Your task to perform on an android device: see tabs open on other devices in the chrome app Image 0: 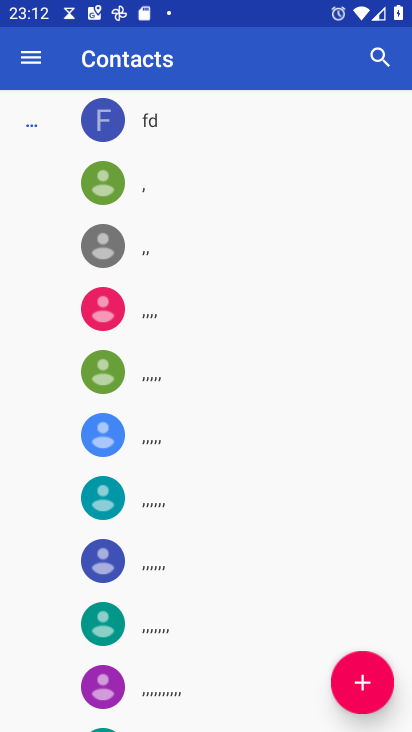
Step 0: press home button
Your task to perform on an android device: see tabs open on other devices in the chrome app Image 1: 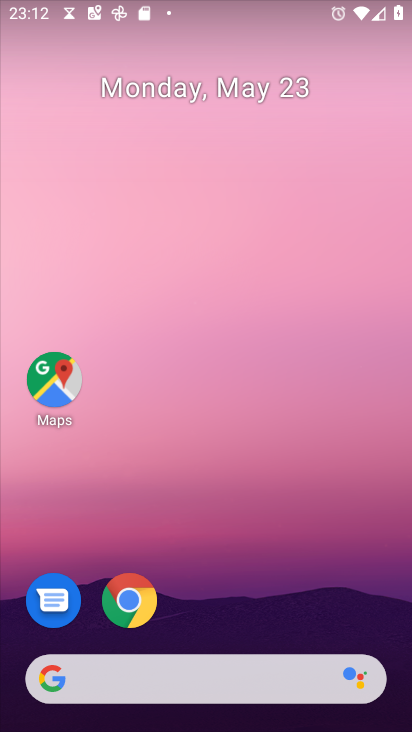
Step 1: click (126, 602)
Your task to perform on an android device: see tabs open on other devices in the chrome app Image 2: 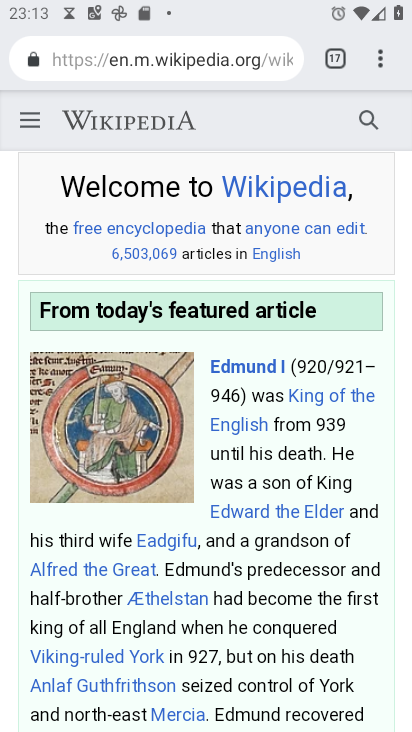
Step 2: click (382, 63)
Your task to perform on an android device: see tabs open on other devices in the chrome app Image 3: 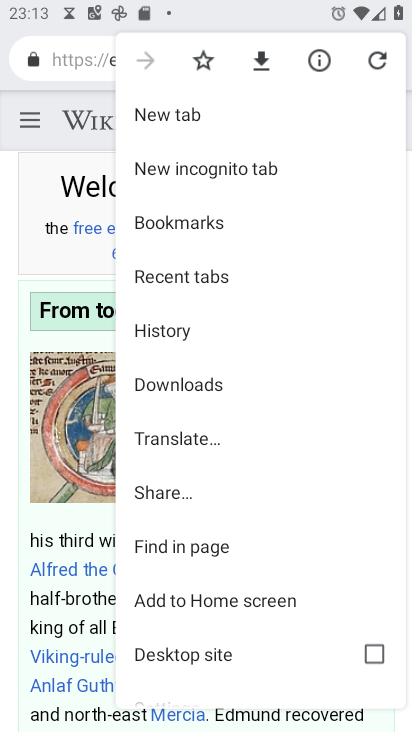
Step 3: click (161, 276)
Your task to perform on an android device: see tabs open on other devices in the chrome app Image 4: 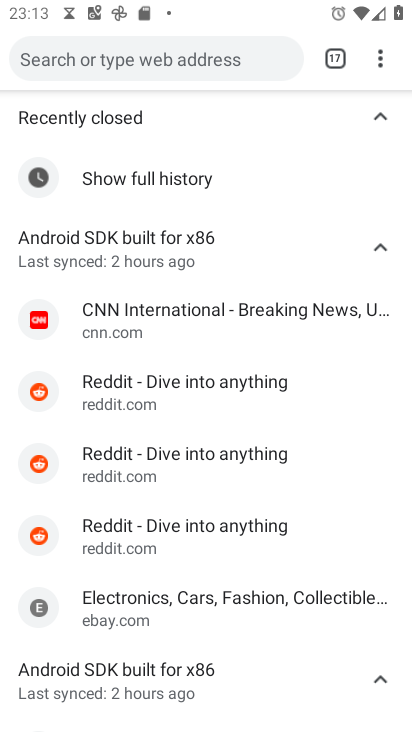
Step 4: task complete